Your task to perform on an android device: open app "YouTube Kids" Image 0: 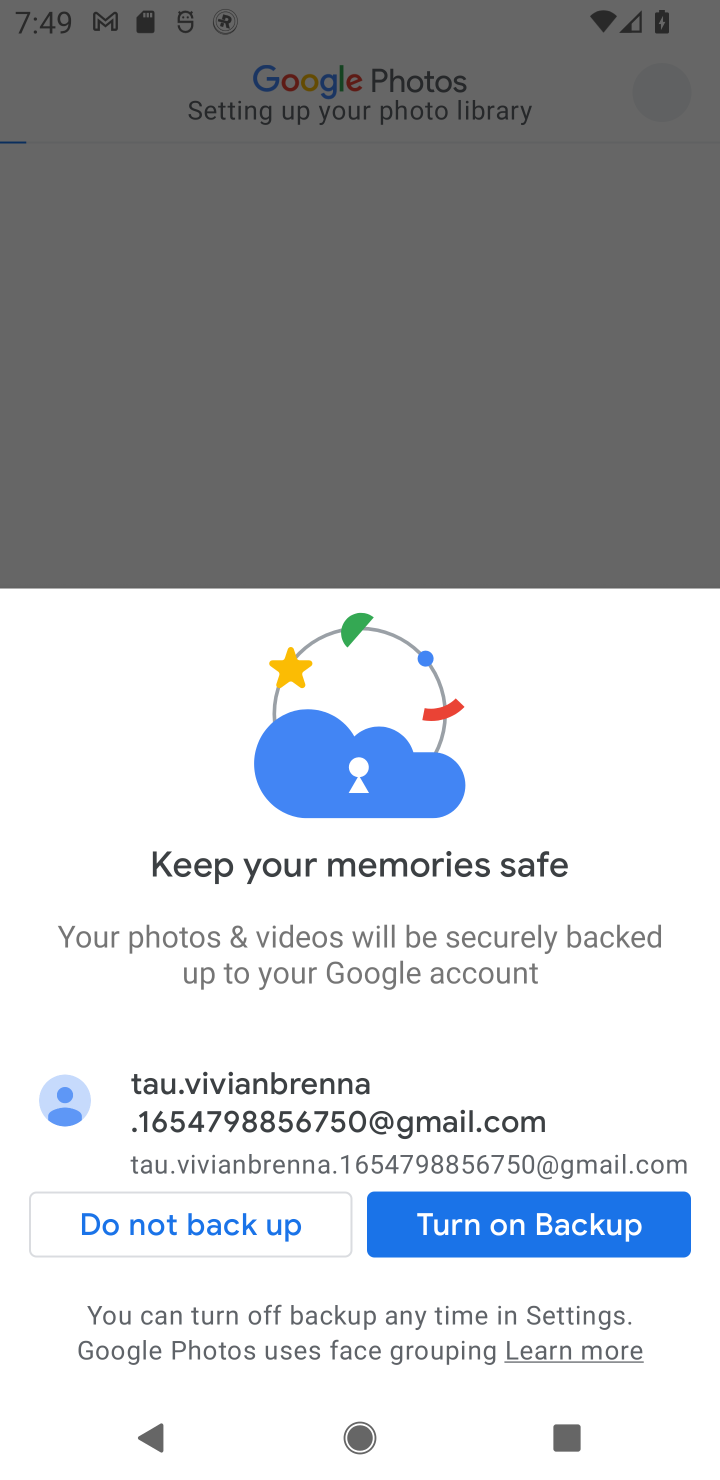
Step 0: press home button
Your task to perform on an android device: open app "YouTube Kids" Image 1: 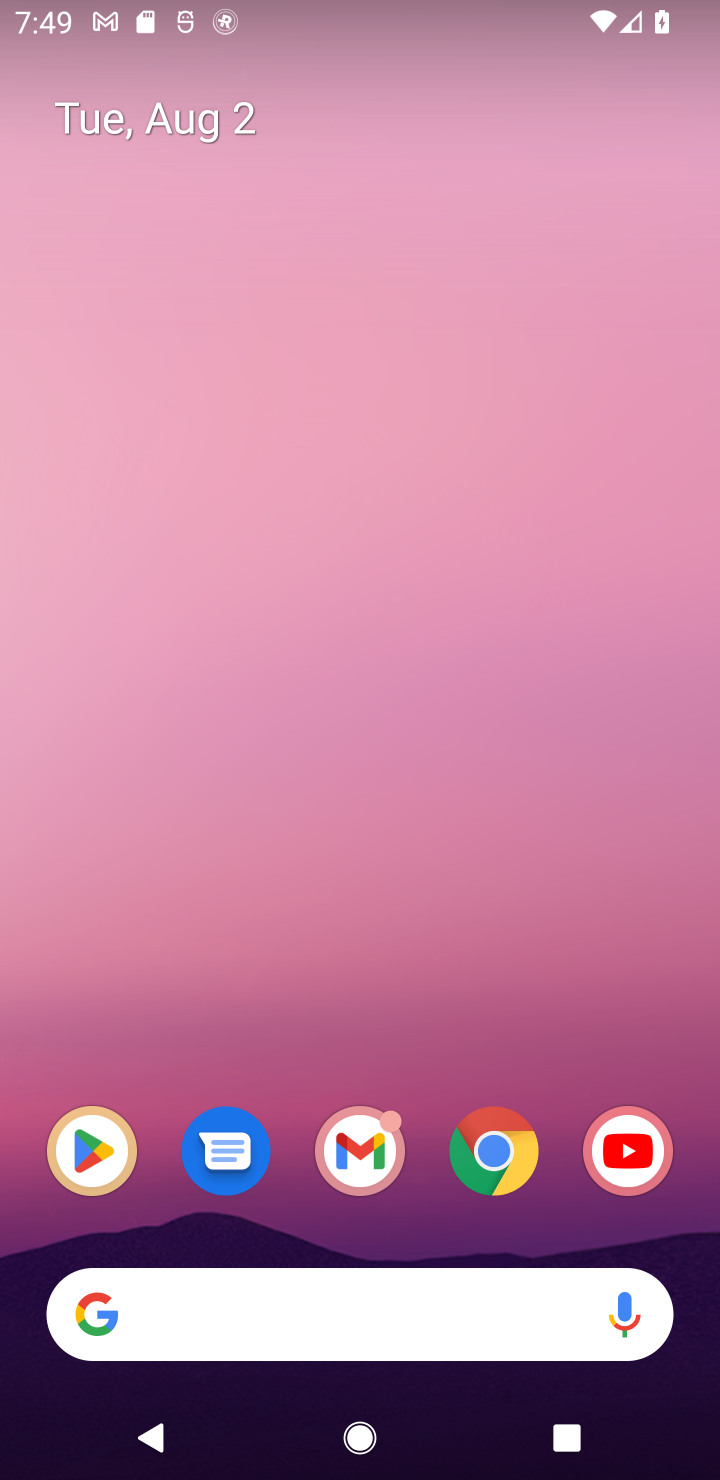
Step 1: click (77, 1149)
Your task to perform on an android device: open app "YouTube Kids" Image 2: 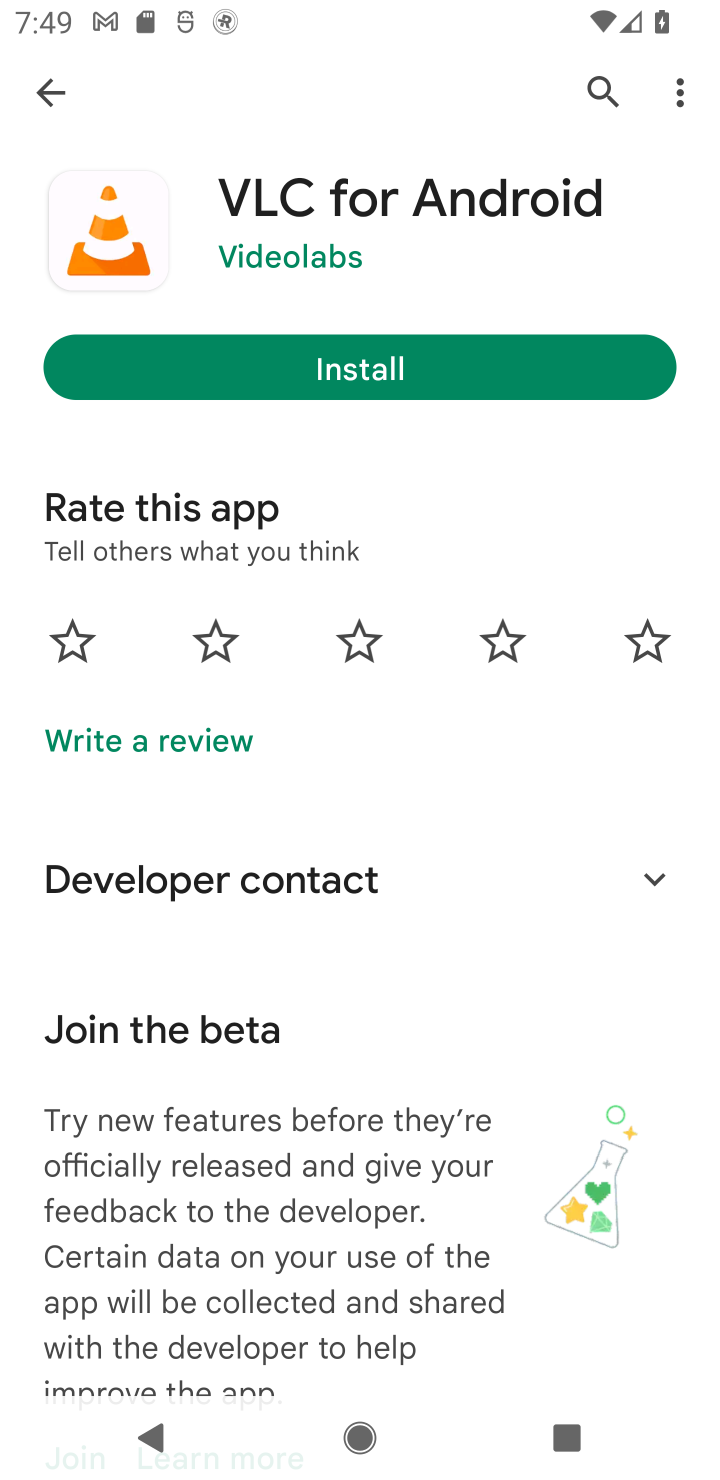
Step 2: click (599, 71)
Your task to perform on an android device: open app "YouTube Kids" Image 3: 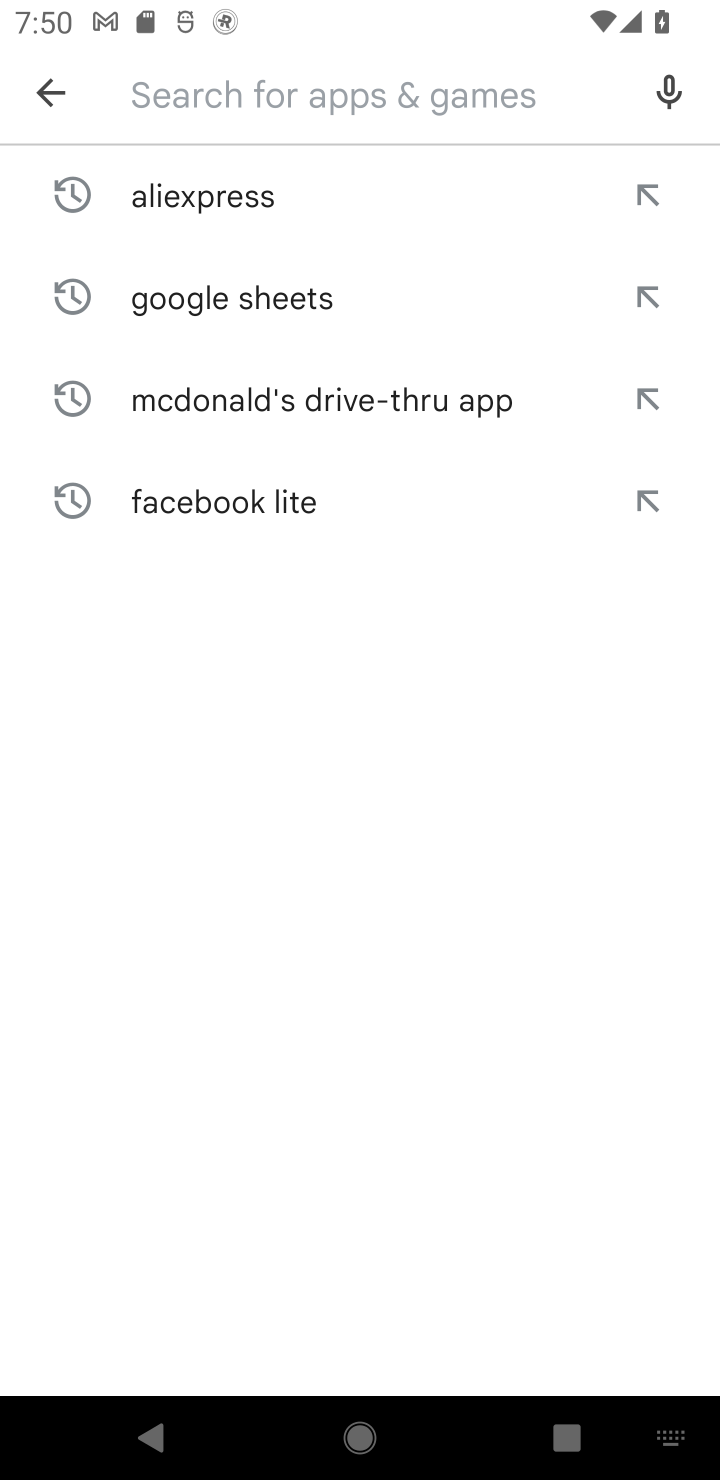
Step 3: type "YouTube Kids"
Your task to perform on an android device: open app "YouTube Kids" Image 4: 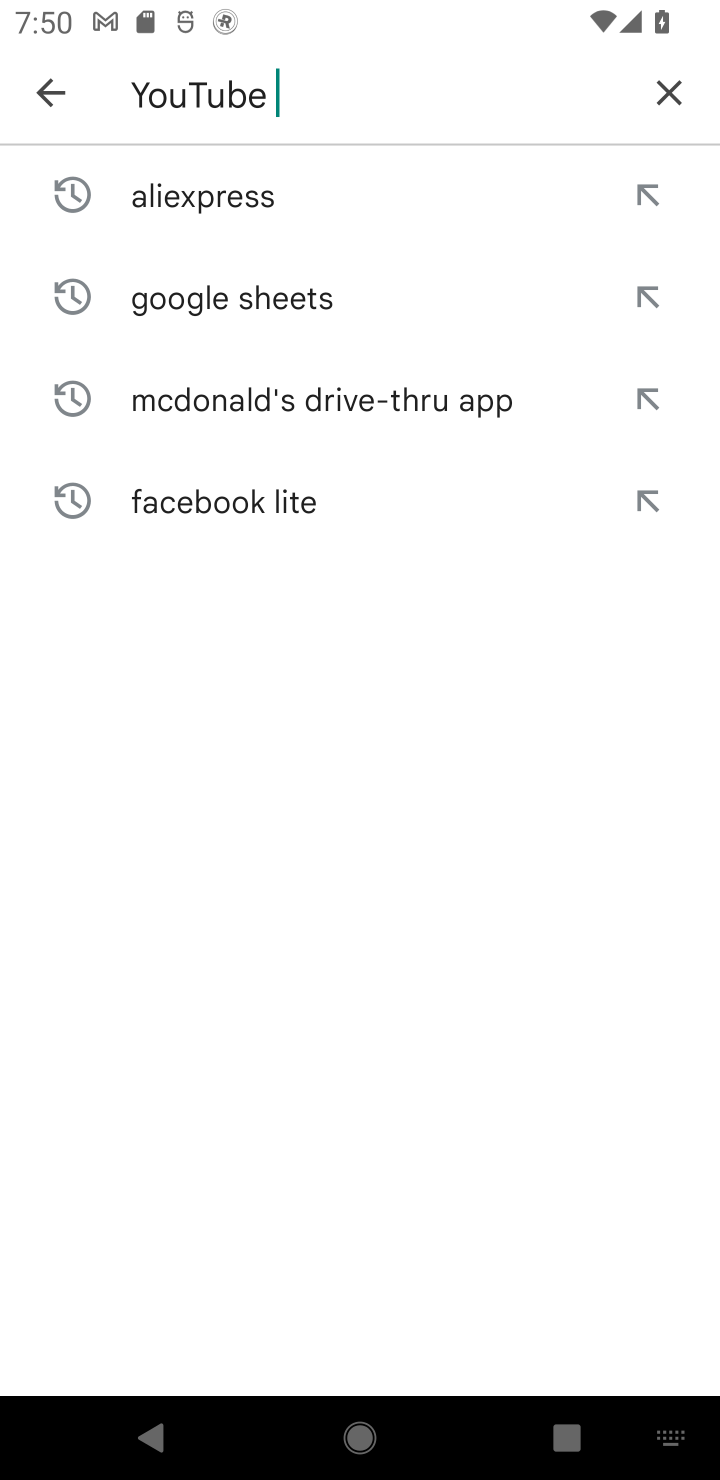
Step 4: type ""
Your task to perform on an android device: open app "YouTube Kids" Image 5: 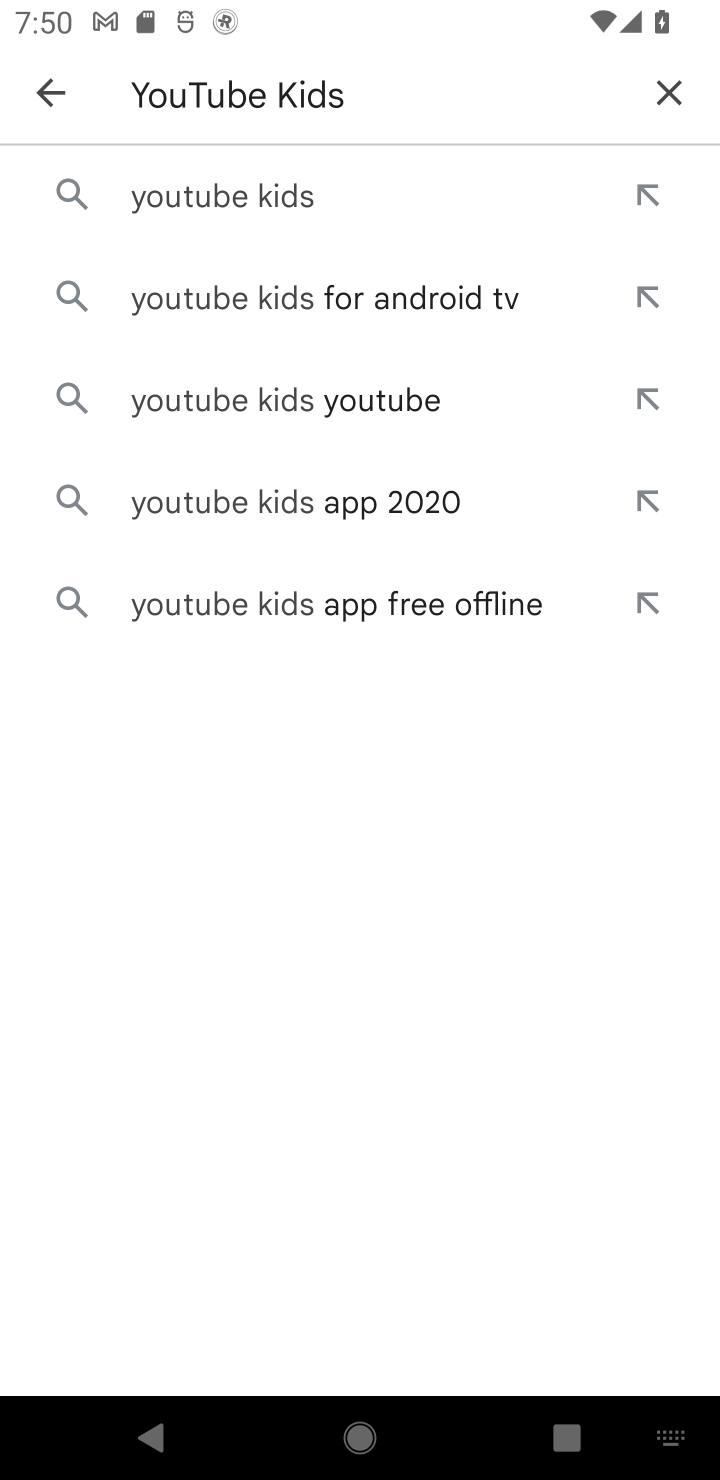
Step 5: click (189, 192)
Your task to perform on an android device: open app "YouTube Kids" Image 6: 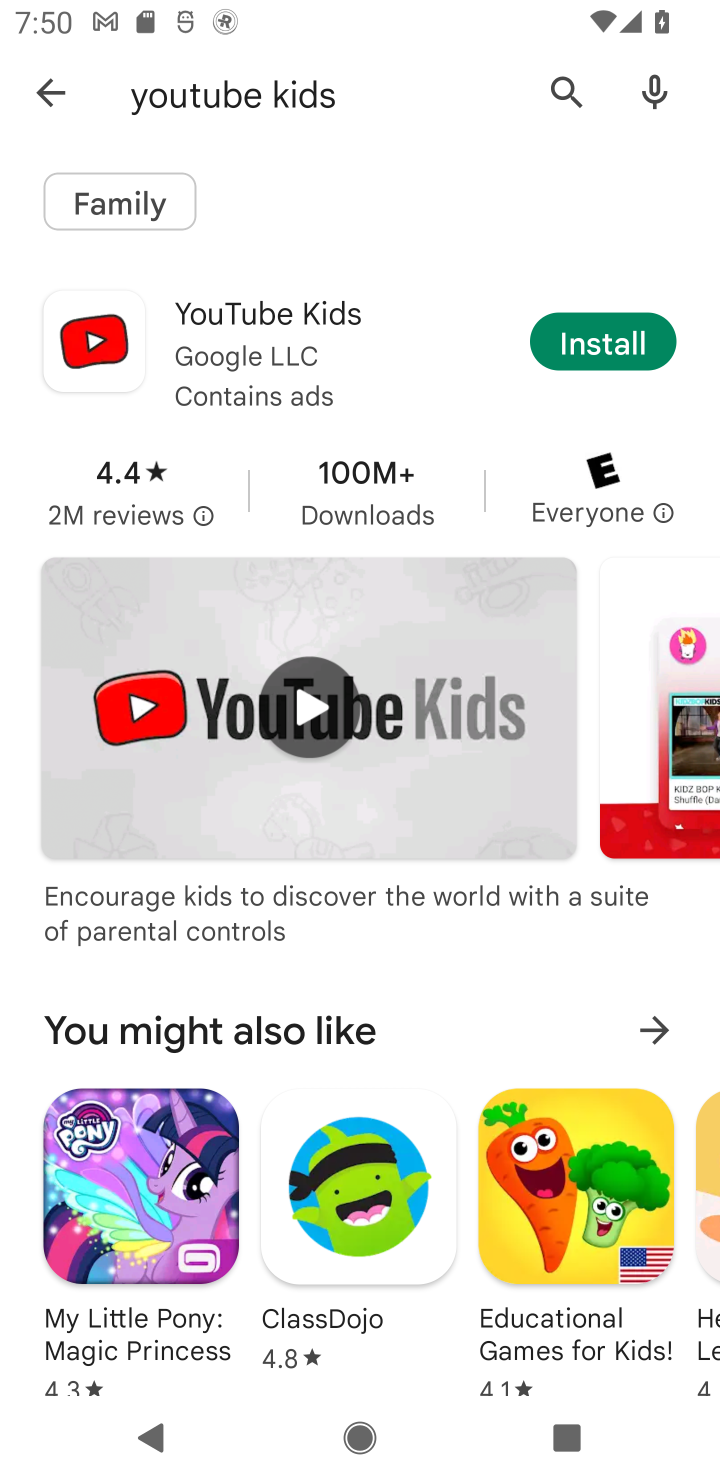
Step 6: task complete